Your task to perform on an android device: Is it going to rain tomorrow? Image 0: 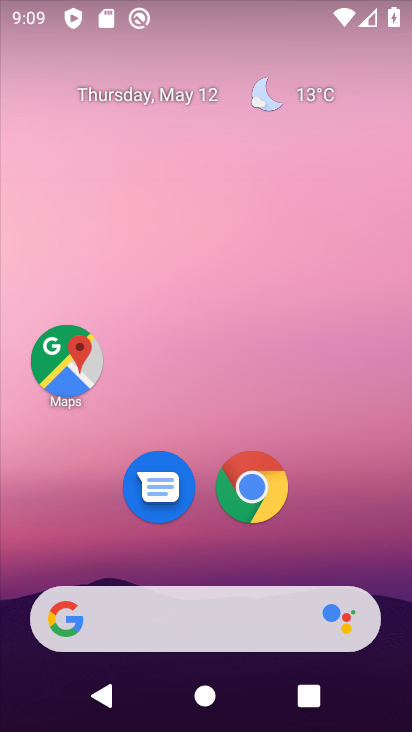
Step 0: click (307, 97)
Your task to perform on an android device: Is it going to rain tomorrow? Image 1: 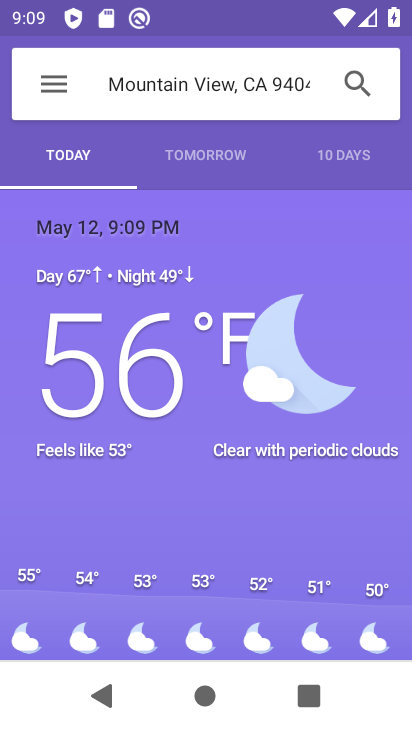
Step 1: click (203, 165)
Your task to perform on an android device: Is it going to rain tomorrow? Image 2: 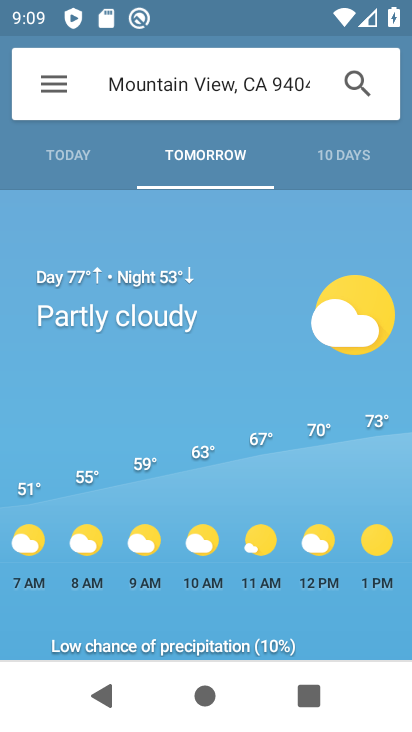
Step 2: task complete